Your task to perform on an android device: check the backup settings in the google photos Image 0: 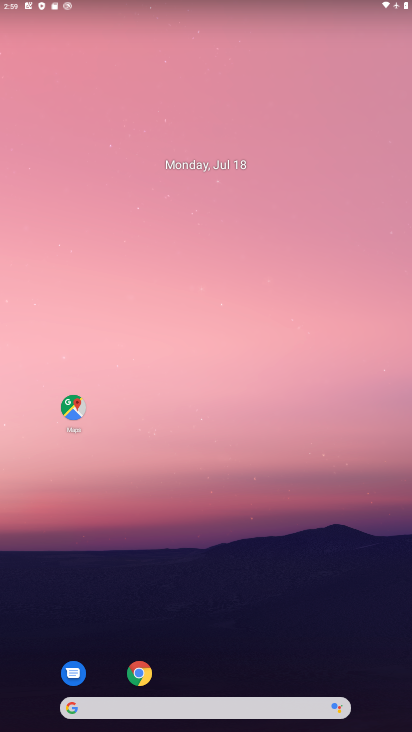
Step 0: drag from (234, 656) to (229, 440)
Your task to perform on an android device: check the backup settings in the google photos Image 1: 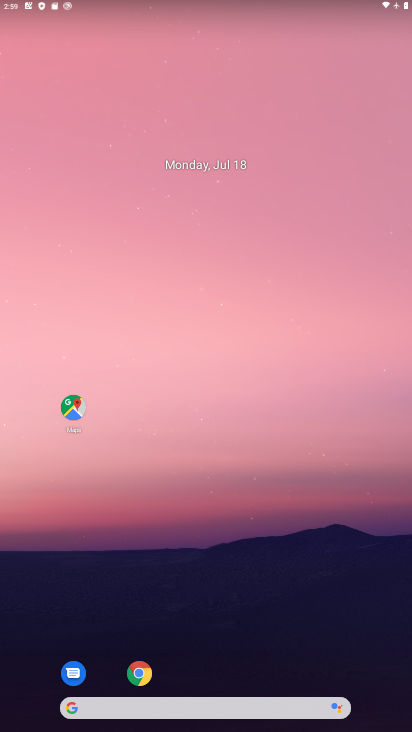
Step 1: drag from (226, 687) to (220, 304)
Your task to perform on an android device: check the backup settings in the google photos Image 2: 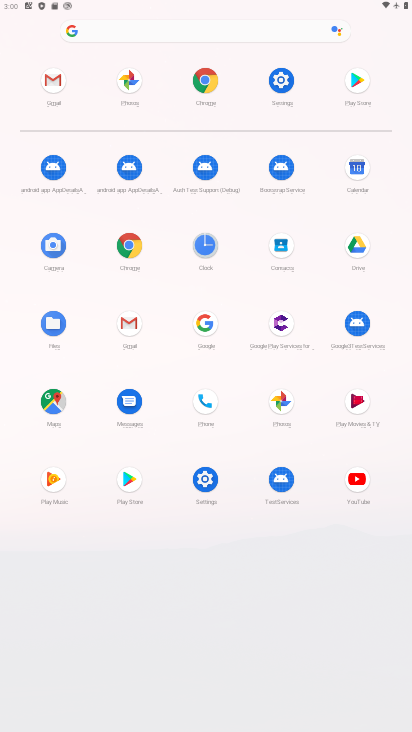
Step 2: click (282, 400)
Your task to perform on an android device: check the backup settings in the google photos Image 3: 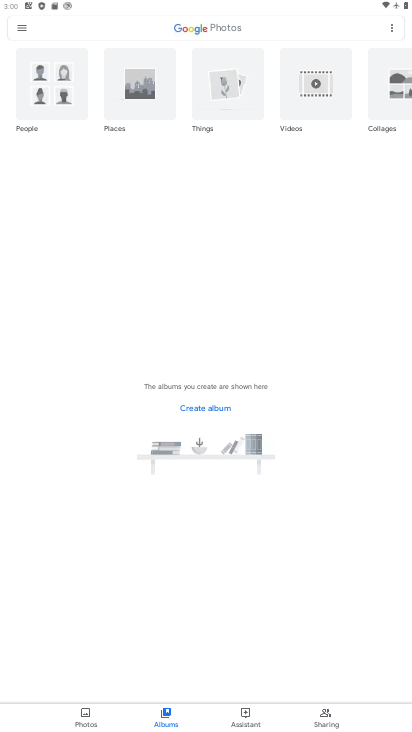
Step 3: click (20, 25)
Your task to perform on an android device: check the backup settings in the google photos Image 4: 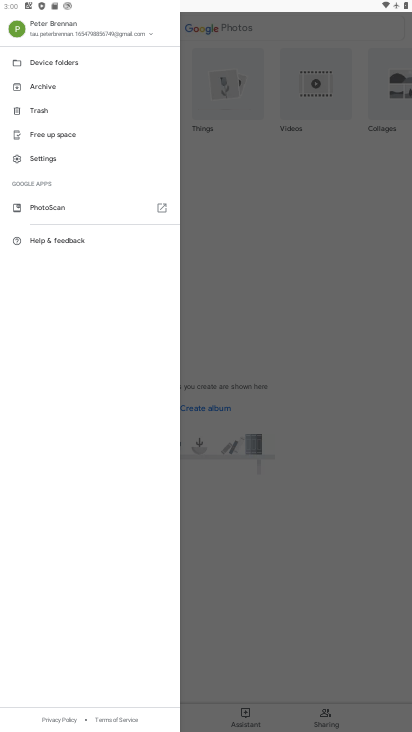
Step 4: click (47, 154)
Your task to perform on an android device: check the backup settings in the google photos Image 5: 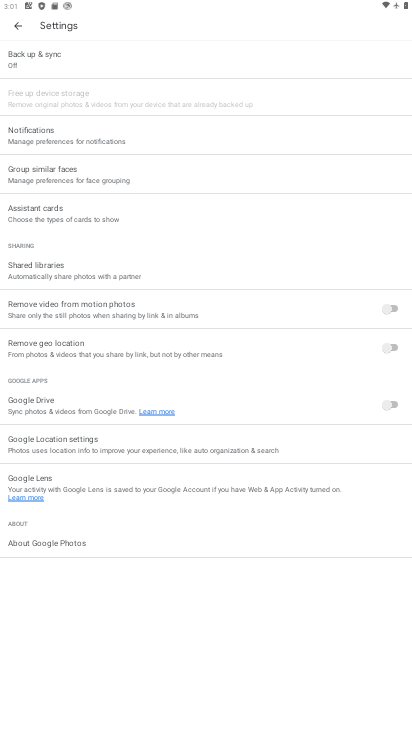
Step 5: task complete